Your task to perform on an android device: change text size in settings app Image 0: 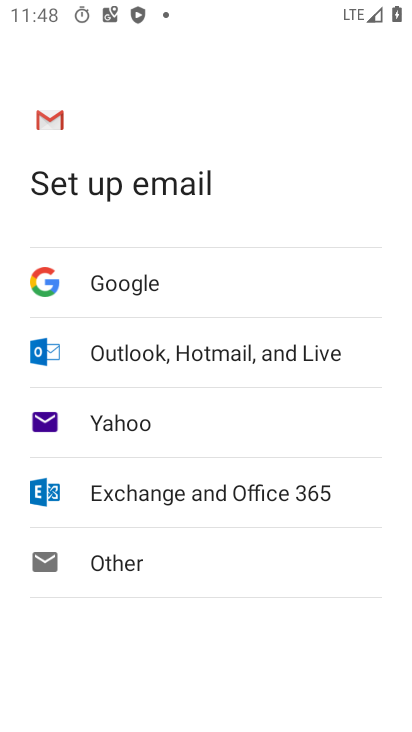
Step 0: press home button
Your task to perform on an android device: change text size in settings app Image 1: 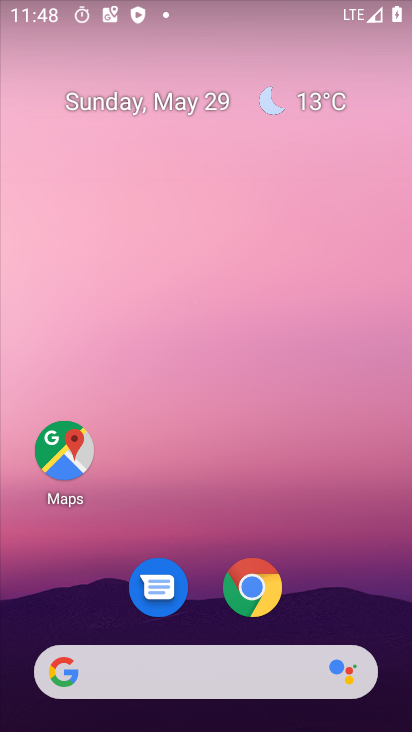
Step 1: drag from (334, 570) to (362, 150)
Your task to perform on an android device: change text size in settings app Image 2: 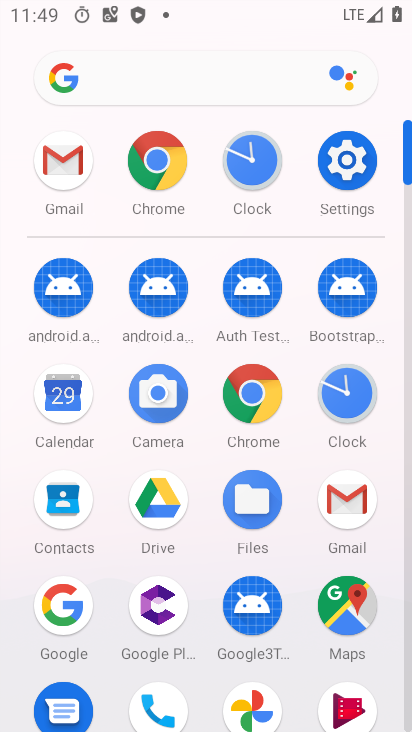
Step 2: click (359, 176)
Your task to perform on an android device: change text size in settings app Image 3: 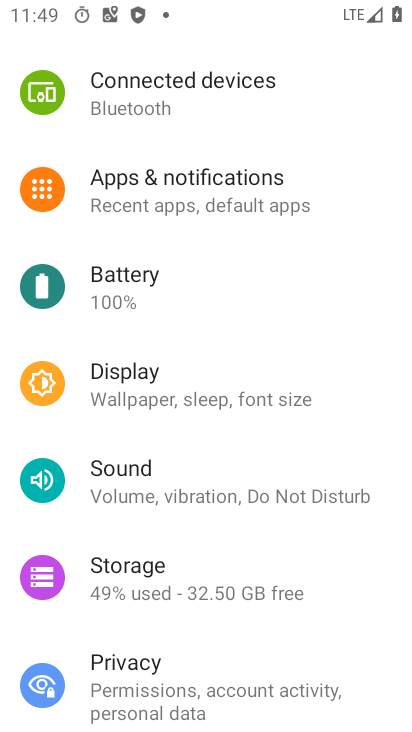
Step 3: drag from (214, 136) to (214, 579)
Your task to perform on an android device: change text size in settings app Image 4: 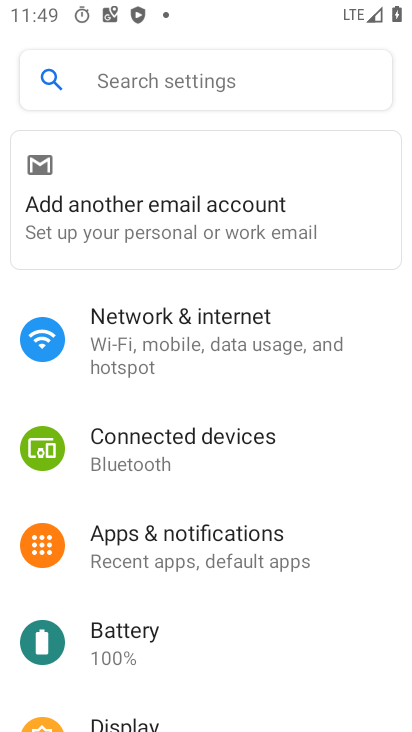
Step 4: drag from (202, 502) to (267, 98)
Your task to perform on an android device: change text size in settings app Image 5: 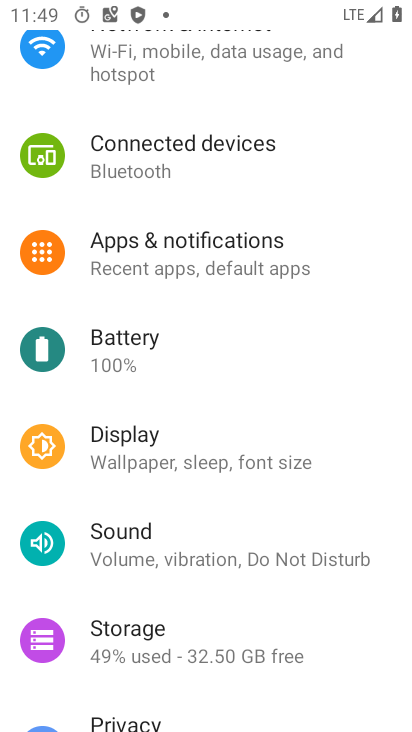
Step 5: drag from (209, 564) to (262, 123)
Your task to perform on an android device: change text size in settings app Image 6: 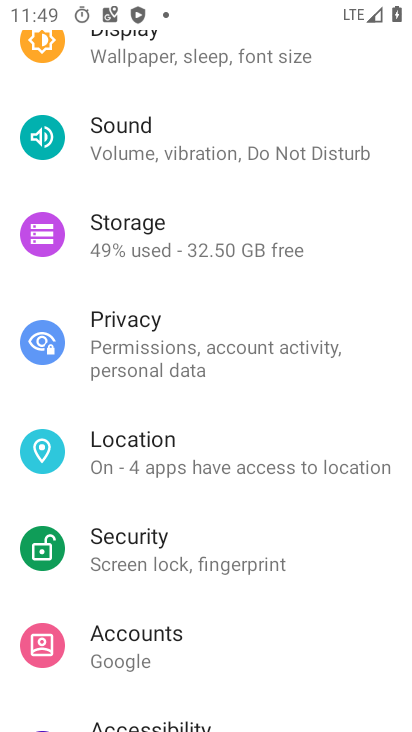
Step 6: drag from (188, 560) to (240, 149)
Your task to perform on an android device: change text size in settings app Image 7: 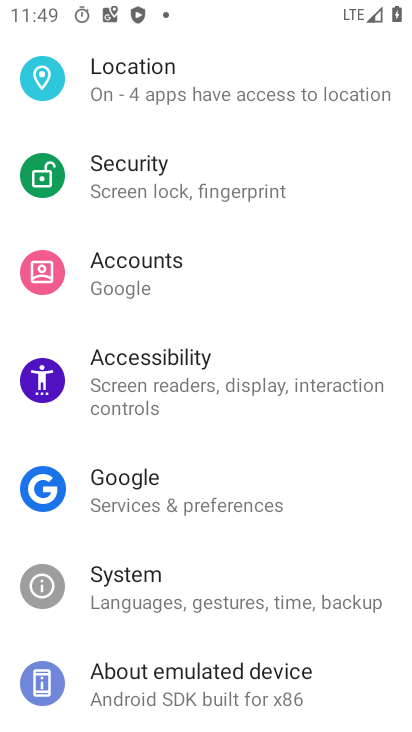
Step 7: drag from (180, 576) to (280, 169)
Your task to perform on an android device: change text size in settings app Image 8: 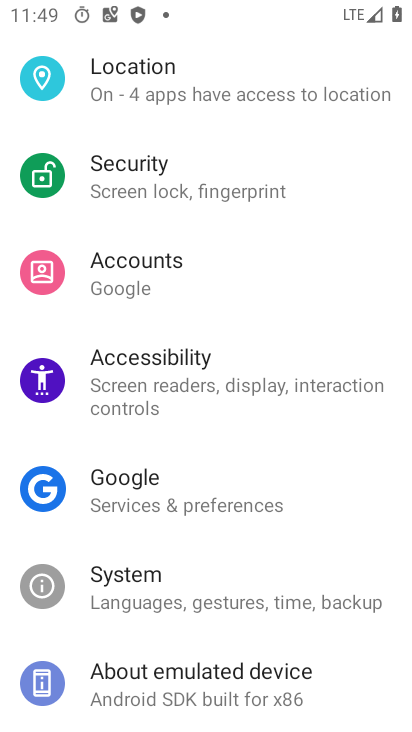
Step 8: click (183, 605)
Your task to perform on an android device: change text size in settings app Image 9: 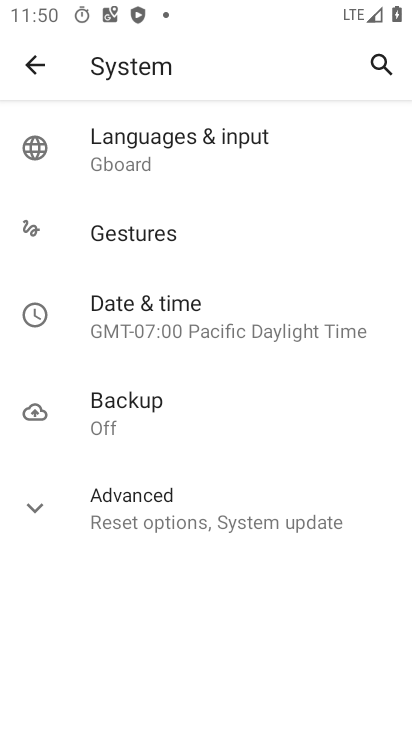
Step 9: click (131, 145)
Your task to perform on an android device: change text size in settings app Image 10: 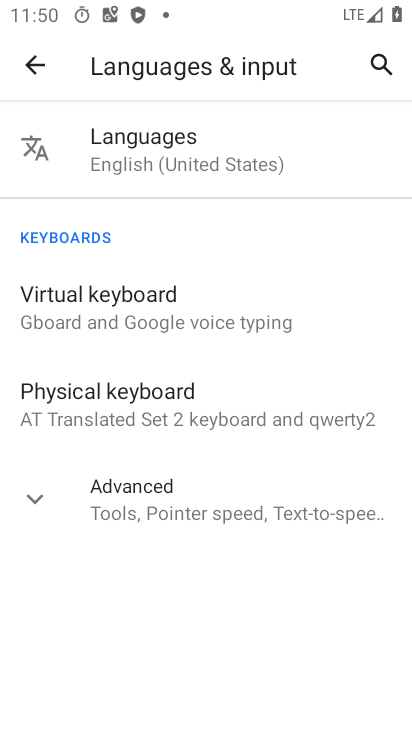
Step 10: click (158, 324)
Your task to perform on an android device: change text size in settings app Image 11: 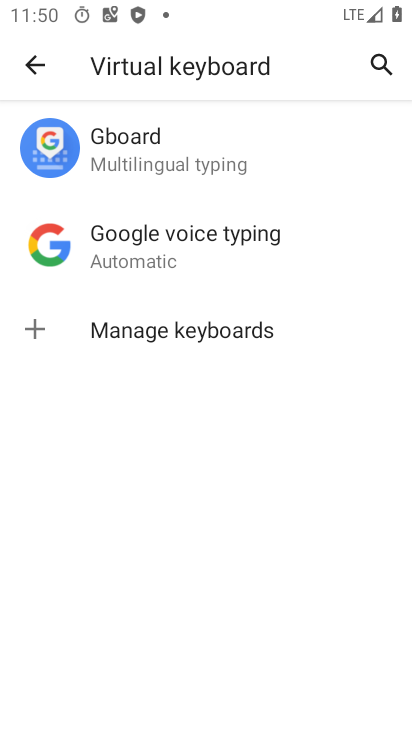
Step 11: click (211, 135)
Your task to perform on an android device: change text size in settings app Image 12: 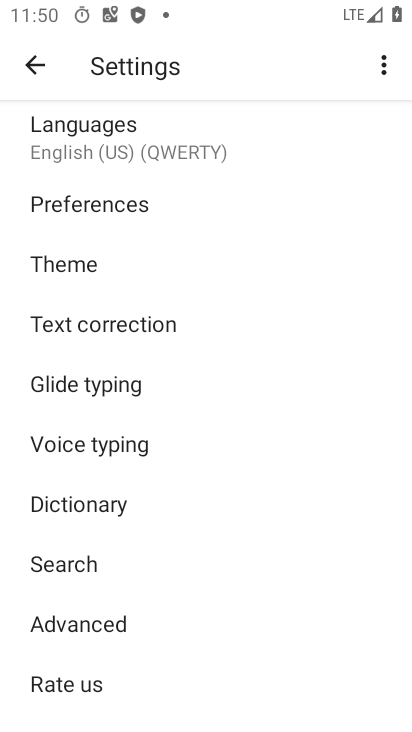
Step 12: click (95, 260)
Your task to perform on an android device: change text size in settings app Image 13: 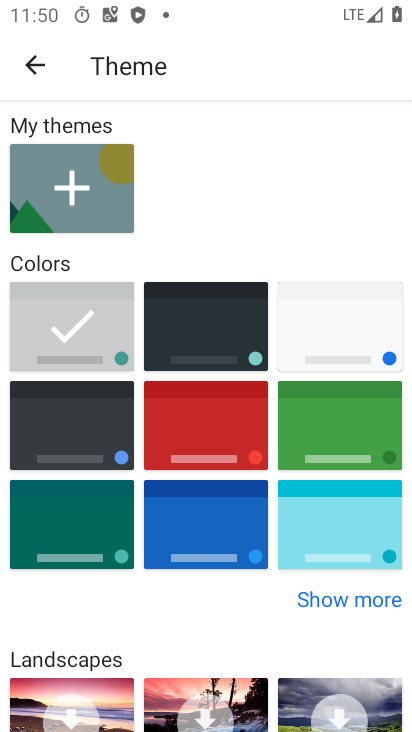
Step 13: drag from (317, 308) to (277, 133)
Your task to perform on an android device: change text size in settings app Image 14: 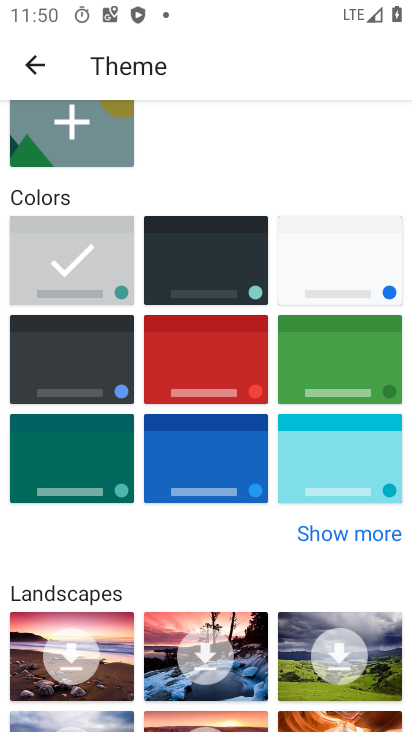
Step 14: click (26, 57)
Your task to perform on an android device: change text size in settings app Image 15: 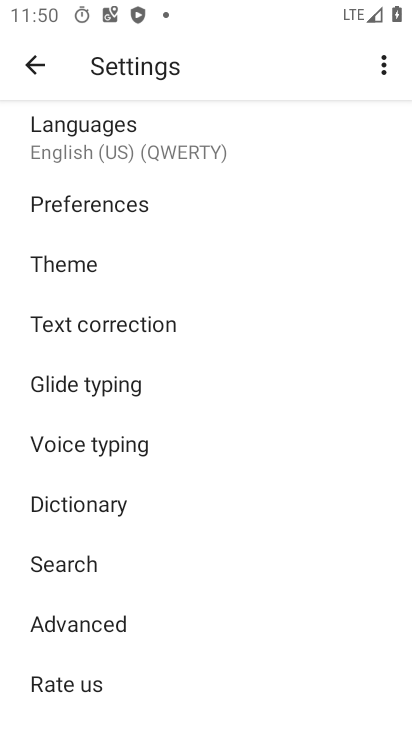
Step 15: click (28, 63)
Your task to perform on an android device: change text size in settings app Image 16: 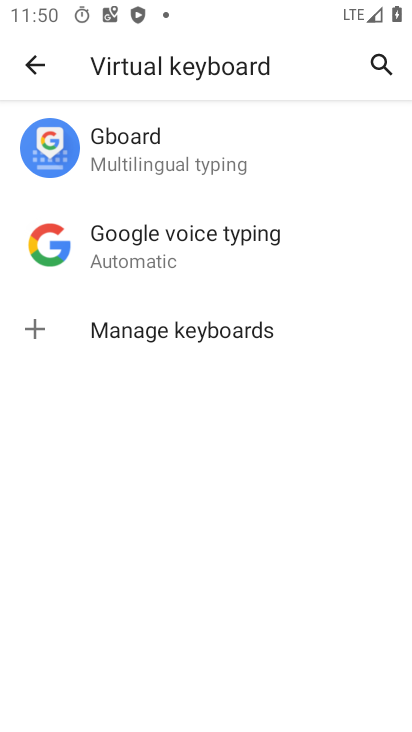
Step 16: click (28, 63)
Your task to perform on an android device: change text size in settings app Image 17: 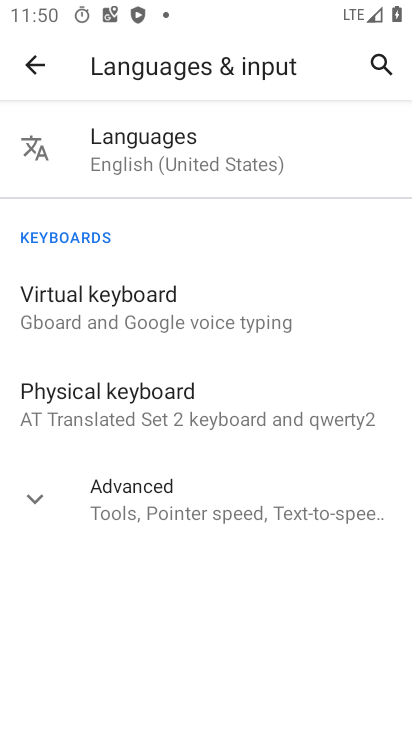
Step 17: click (29, 63)
Your task to perform on an android device: change text size in settings app Image 18: 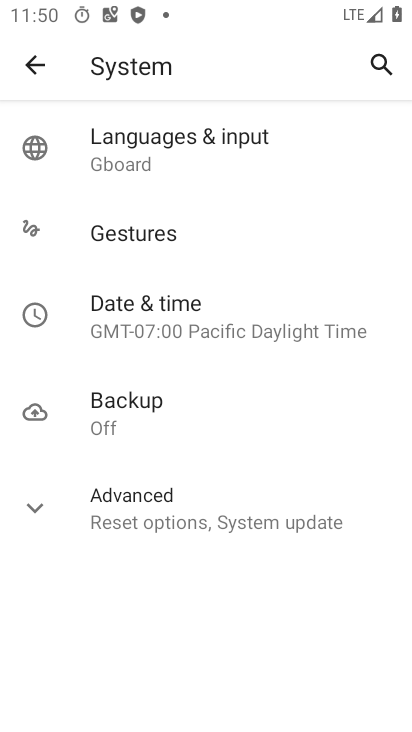
Step 18: click (30, 62)
Your task to perform on an android device: change text size in settings app Image 19: 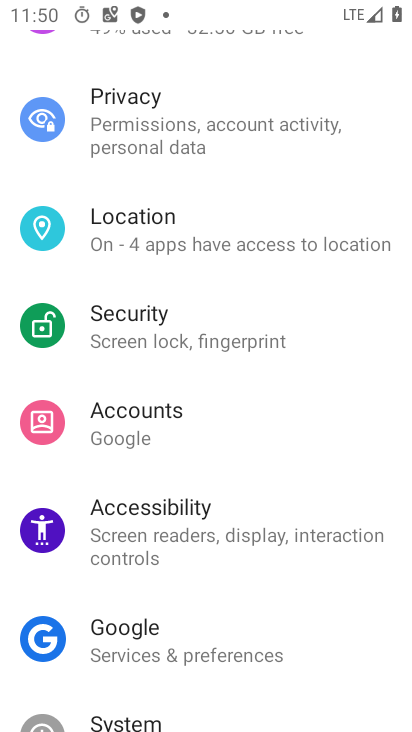
Step 19: drag from (204, 146) to (193, 606)
Your task to perform on an android device: change text size in settings app Image 20: 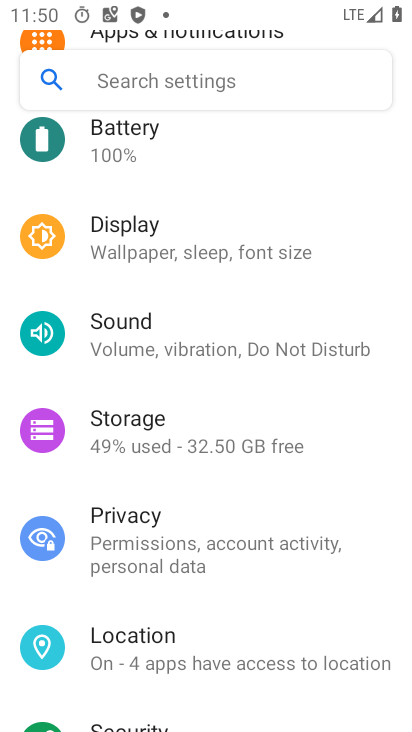
Step 20: drag from (206, 207) to (173, 559)
Your task to perform on an android device: change text size in settings app Image 21: 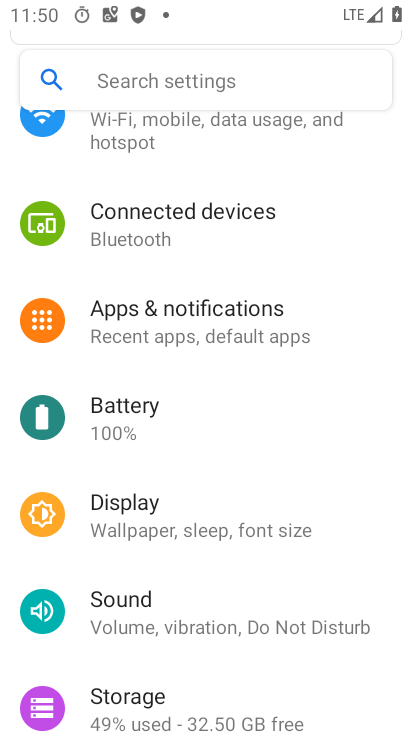
Step 21: drag from (175, 168) to (147, 546)
Your task to perform on an android device: change text size in settings app Image 22: 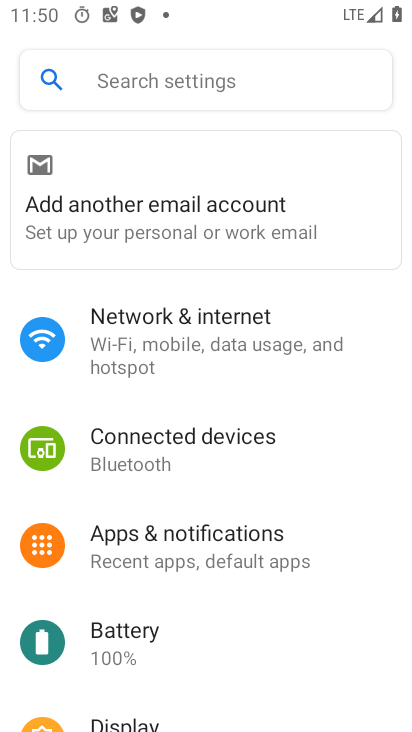
Step 22: click (131, 720)
Your task to perform on an android device: change text size in settings app Image 23: 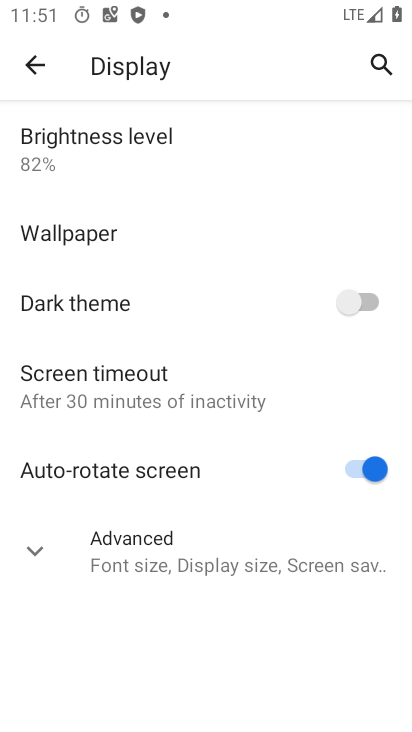
Step 23: click (123, 545)
Your task to perform on an android device: change text size in settings app Image 24: 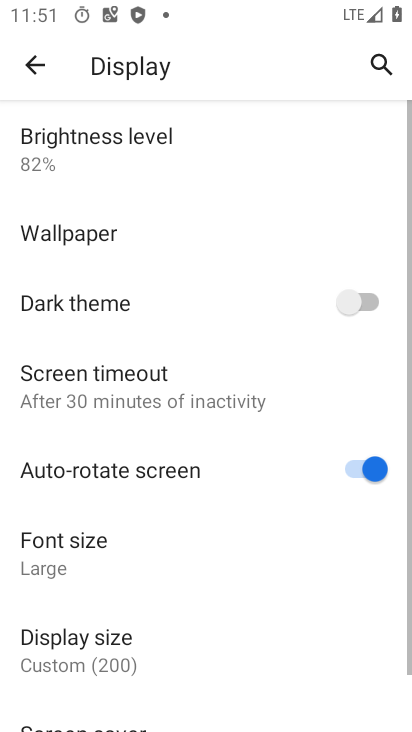
Step 24: click (86, 560)
Your task to perform on an android device: change text size in settings app Image 25: 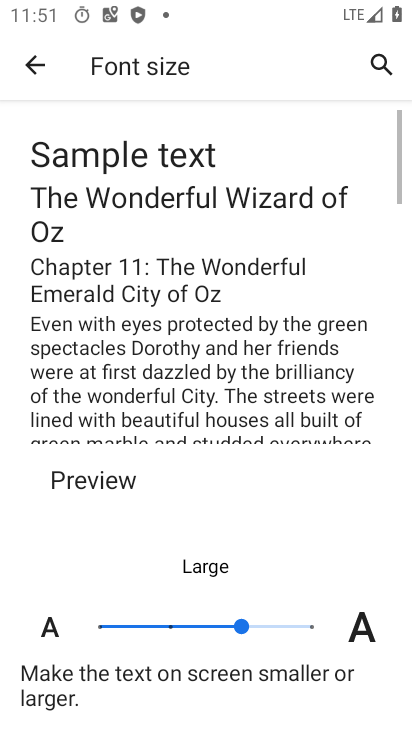
Step 25: click (96, 626)
Your task to perform on an android device: change text size in settings app Image 26: 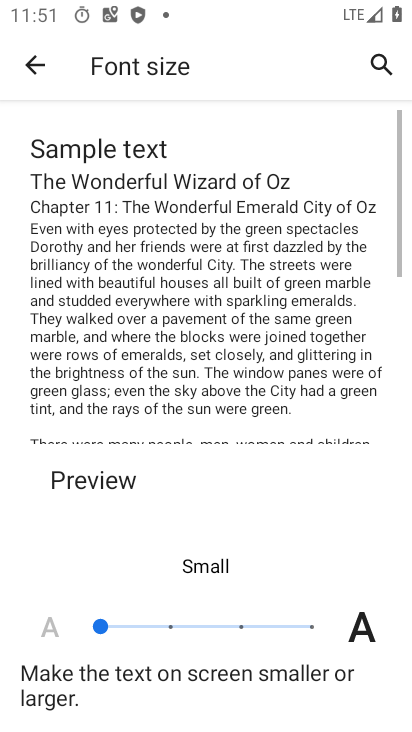
Step 26: click (98, 625)
Your task to perform on an android device: change text size in settings app Image 27: 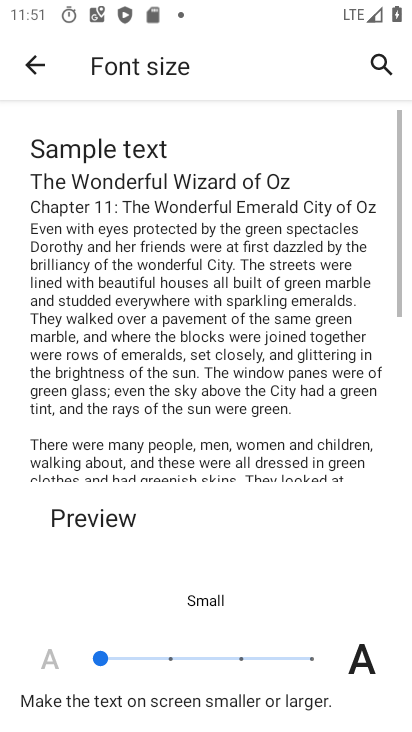
Step 27: task complete